Your task to perform on an android device: turn off priority inbox in the gmail app Image 0: 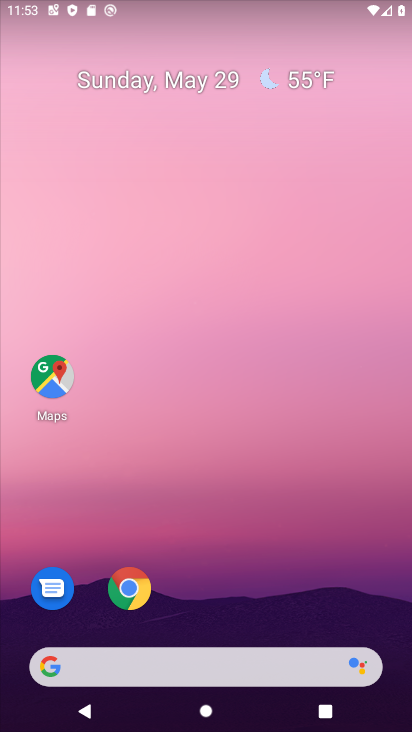
Step 0: drag from (247, 566) to (2, 218)
Your task to perform on an android device: turn off priority inbox in the gmail app Image 1: 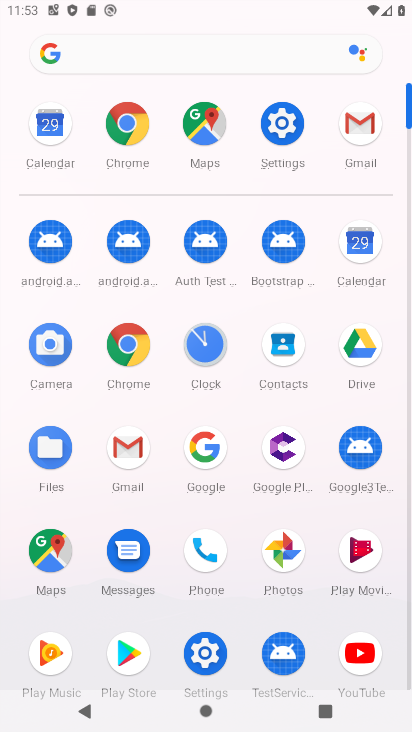
Step 1: click (352, 128)
Your task to perform on an android device: turn off priority inbox in the gmail app Image 2: 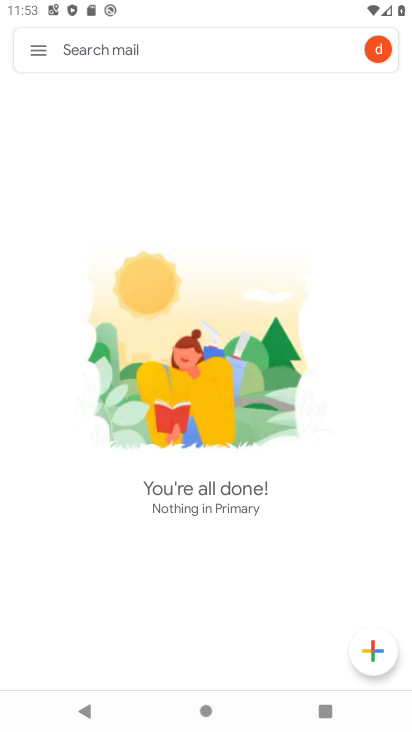
Step 2: click (32, 59)
Your task to perform on an android device: turn off priority inbox in the gmail app Image 3: 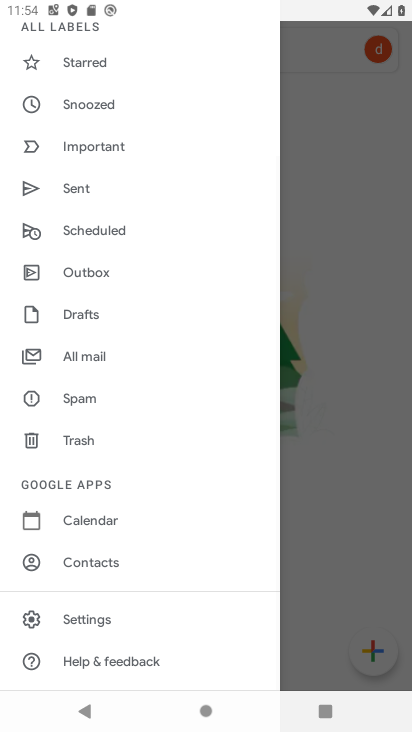
Step 3: click (95, 627)
Your task to perform on an android device: turn off priority inbox in the gmail app Image 4: 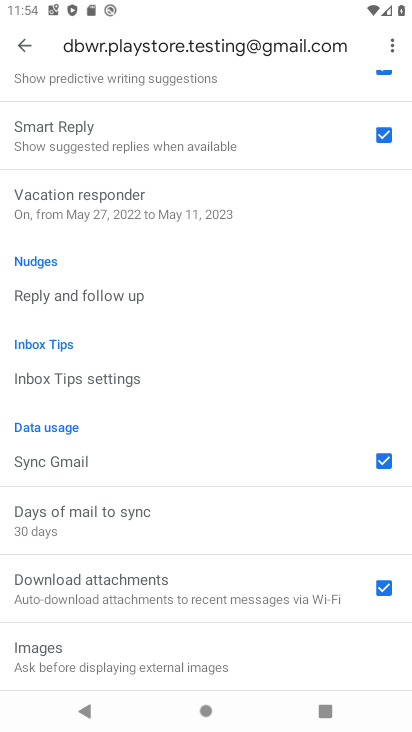
Step 4: drag from (143, 143) to (176, 626)
Your task to perform on an android device: turn off priority inbox in the gmail app Image 5: 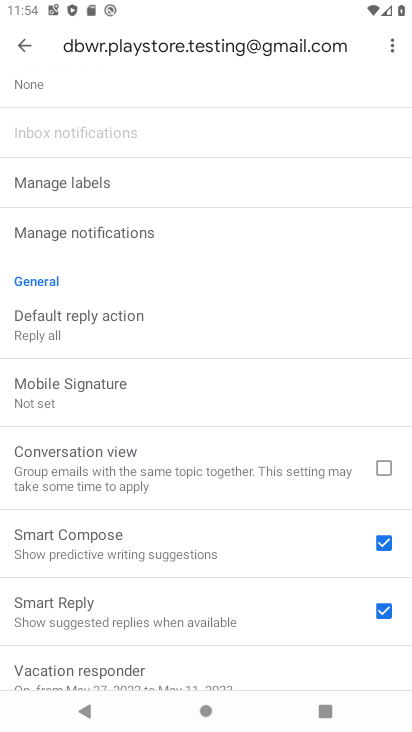
Step 5: drag from (155, 151) to (151, 685)
Your task to perform on an android device: turn off priority inbox in the gmail app Image 6: 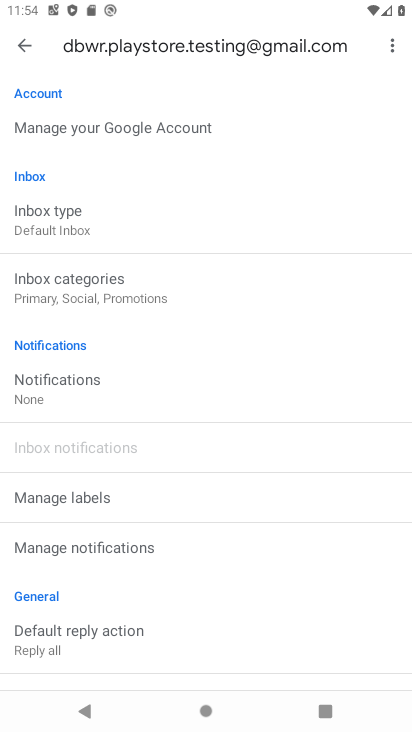
Step 6: click (86, 234)
Your task to perform on an android device: turn off priority inbox in the gmail app Image 7: 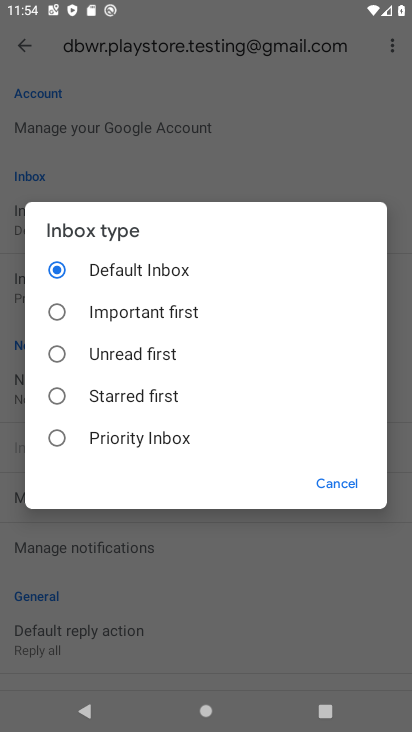
Step 7: task complete